Your task to perform on an android device: change the clock display to analog Image 0: 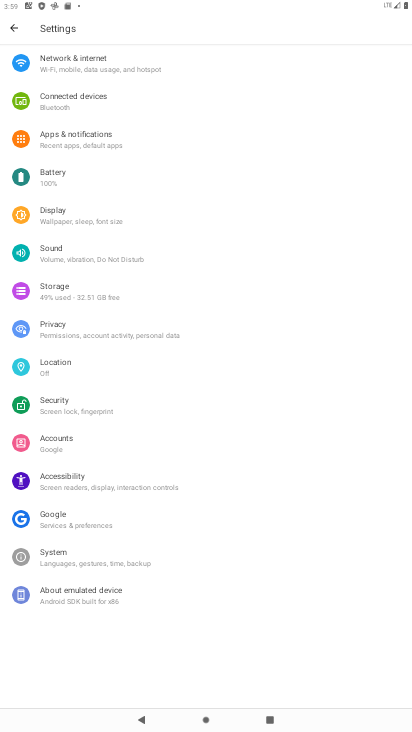
Step 0: press home button
Your task to perform on an android device: change the clock display to analog Image 1: 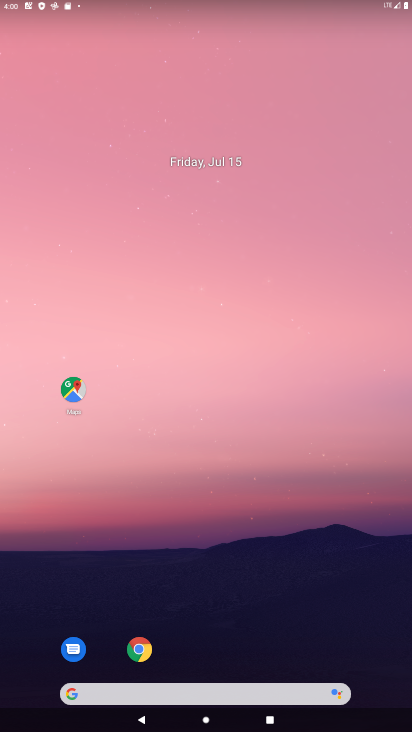
Step 1: drag from (255, 649) to (230, 42)
Your task to perform on an android device: change the clock display to analog Image 2: 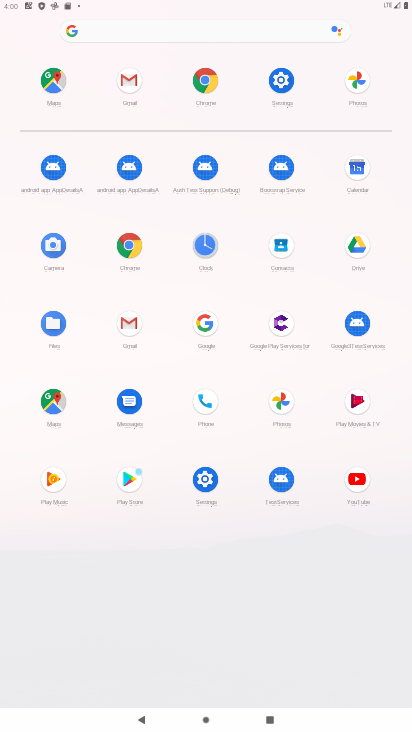
Step 2: click (202, 253)
Your task to perform on an android device: change the clock display to analog Image 3: 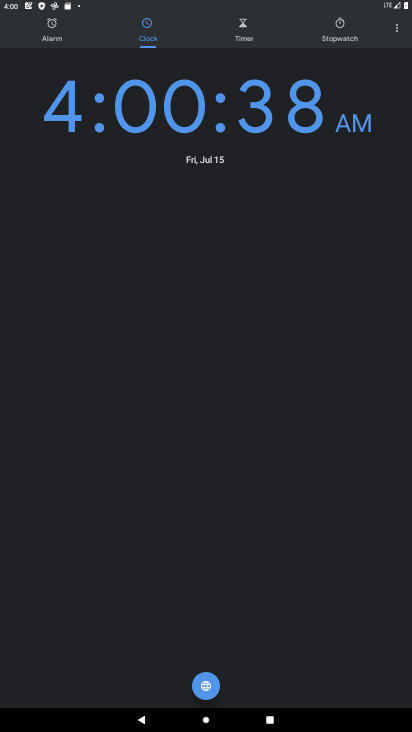
Step 3: click (401, 32)
Your task to perform on an android device: change the clock display to analog Image 4: 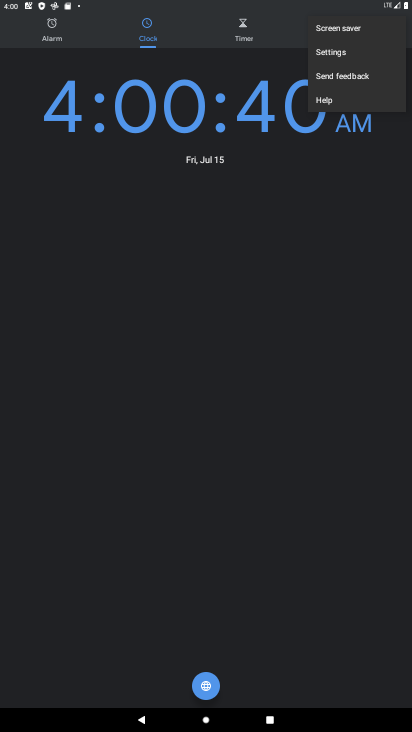
Step 4: click (360, 50)
Your task to perform on an android device: change the clock display to analog Image 5: 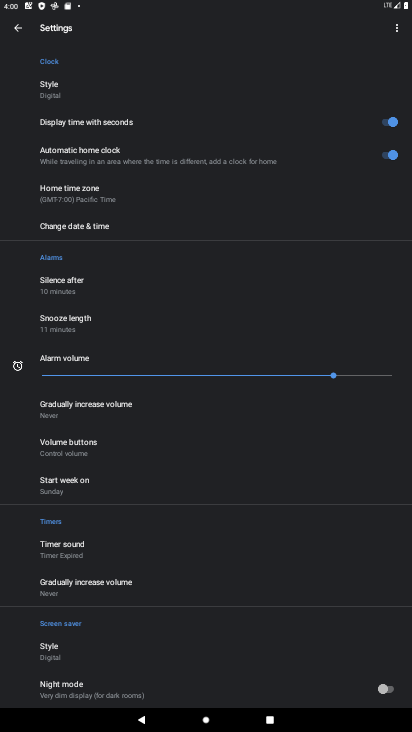
Step 5: click (68, 86)
Your task to perform on an android device: change the clock display to analog Image 6: 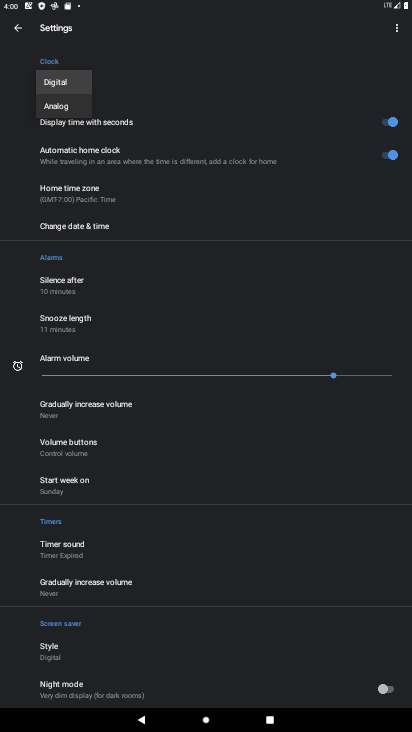
Step 6: click (63, 107)
Your task to perform on an android device: change the clock display to analog Image 7: 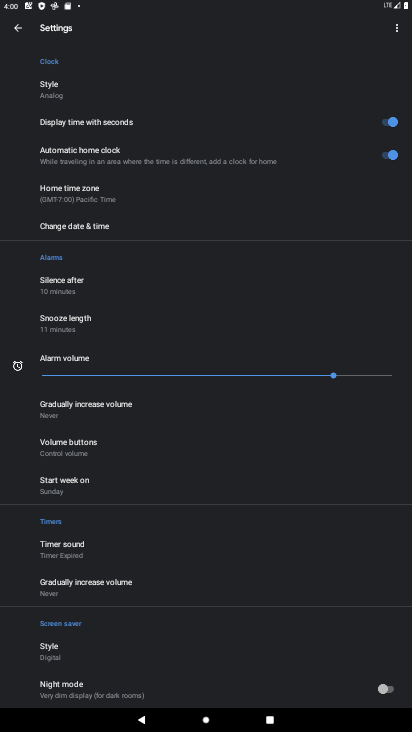
Step 7: task complete